Your task to perform on an android device: Go to battery settings Image 0: 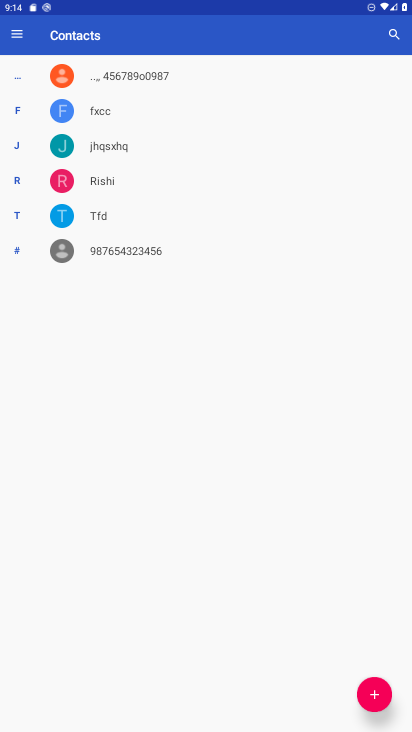
Step 0: press home button
Your task to perform on an android device: Go to battery settings Image 1: 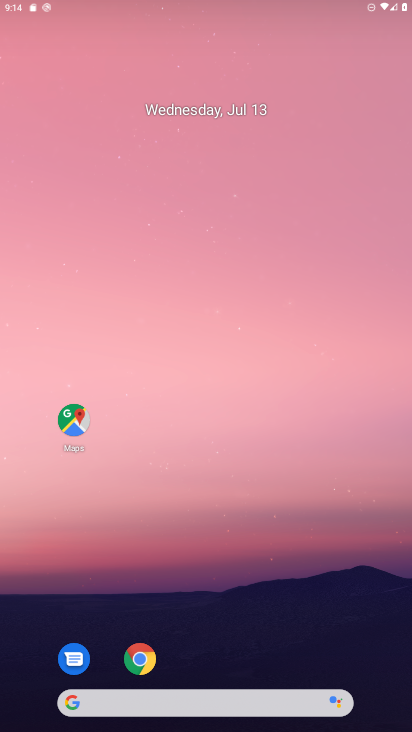
Step 1: drag from (231, 659) to (248, 115)
Your task to perform on an android device: Go to battery settings Image 2: 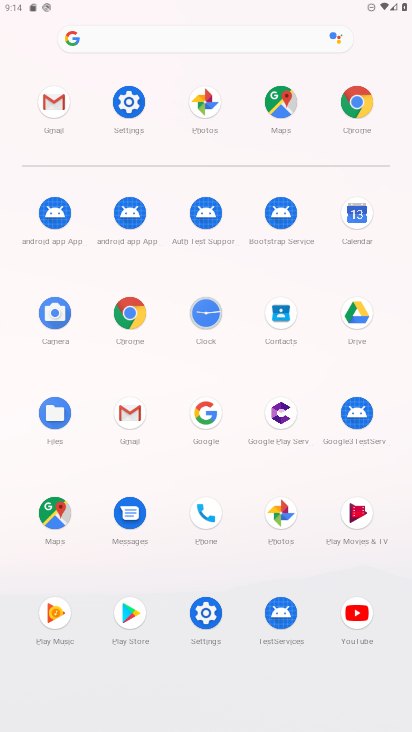
Step 2: click (132, 101)
Your task to perform on an android device: Go to battery settings Image 3: 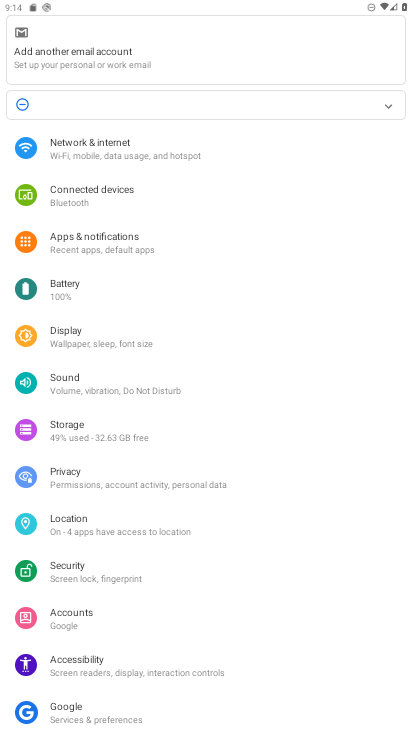
Step 3: click (83, 288)
Your task to perform on an android device: Go to battery settings Image 4: 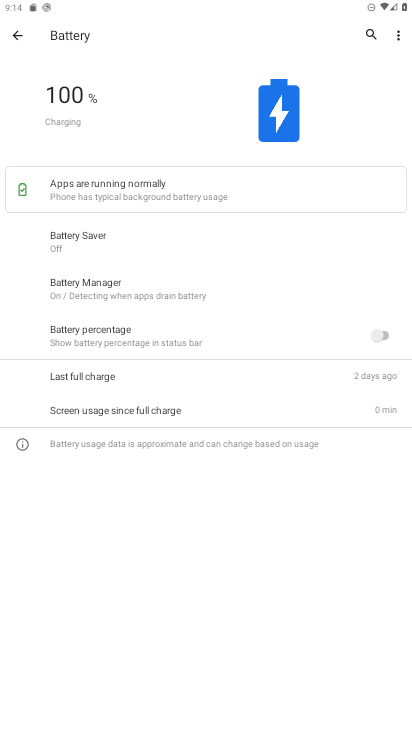
Step 4: task complete